Your task to perform on an android device: Add "razer nari" to the cart on walmart, then select checkout. Image 0: 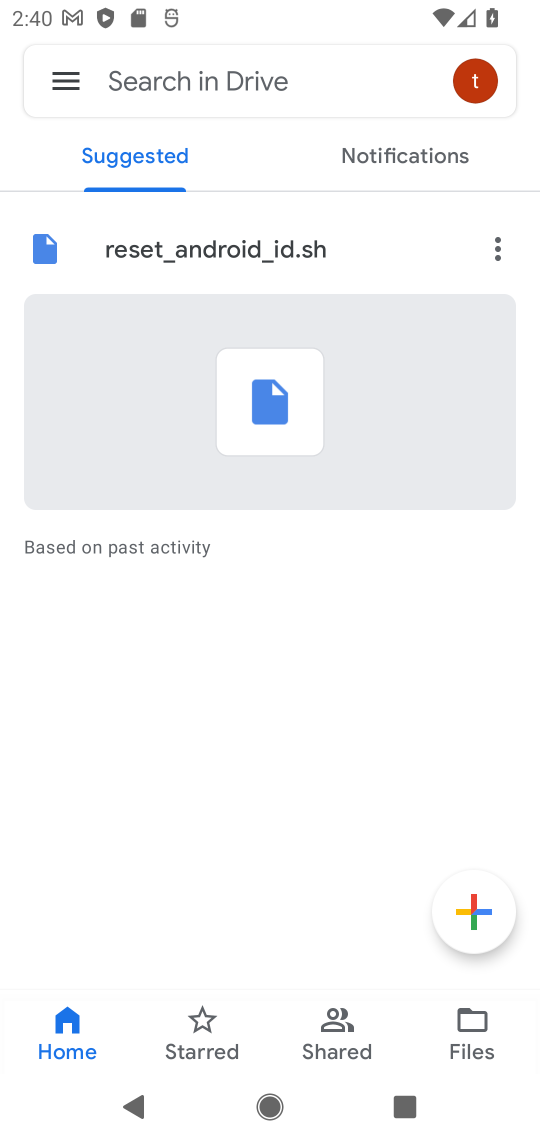
Step 0: press home button
Your task to perform on an android device: Add "razer nari" to the cart on walmart, then select checkout. Image 1: 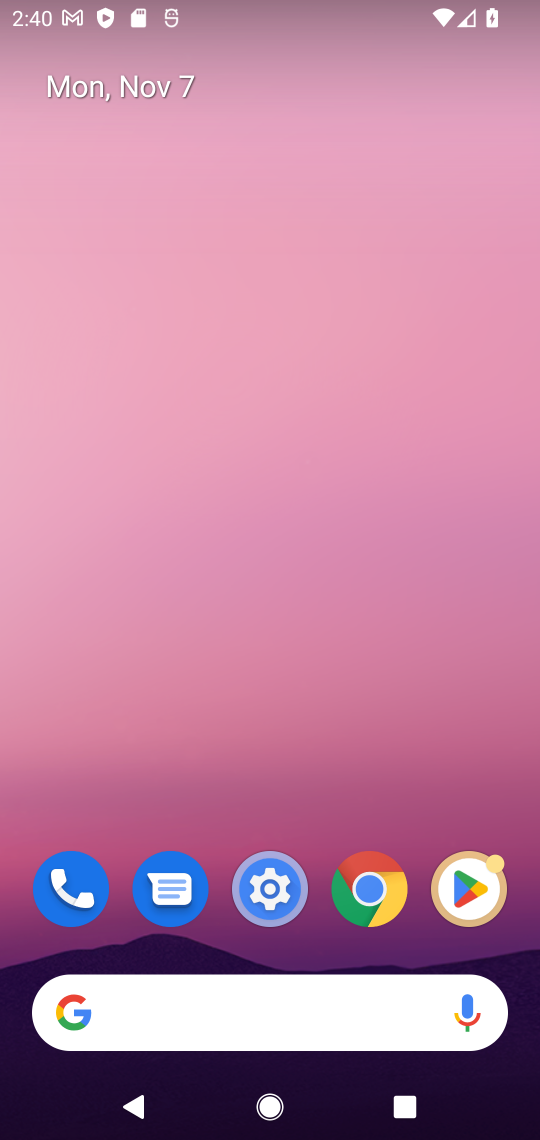
Step 1: click (362, 921)
Your task to perform on an android device: Add "razer nari" to the cart on walmart, then select checkout. Image 2: 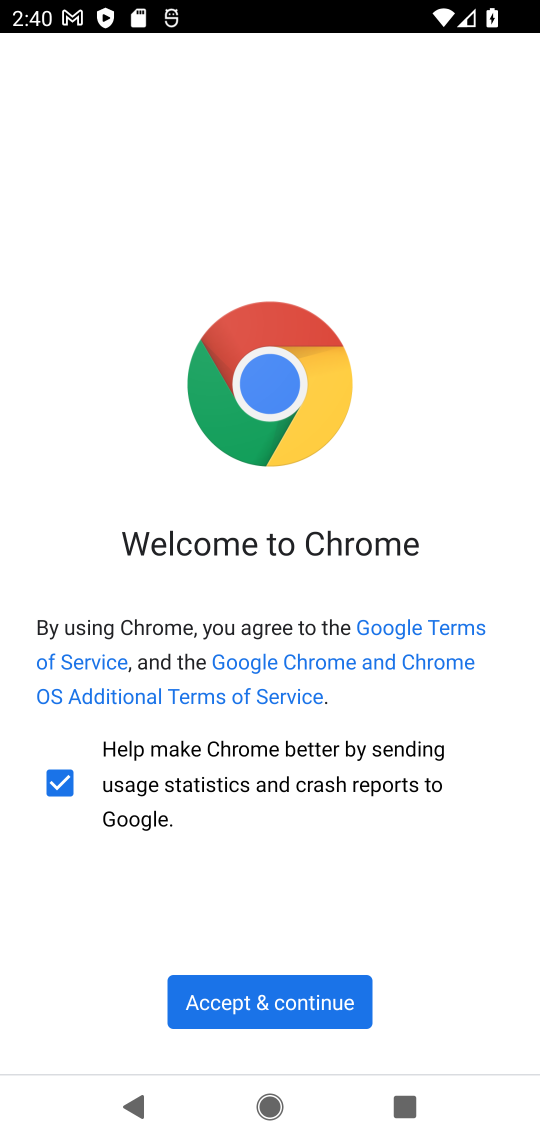
Step 2: click (310, 989)
Your task to perform on an android device: Add "razer nari" to the cart on walmart, then select checkout. Image 3: 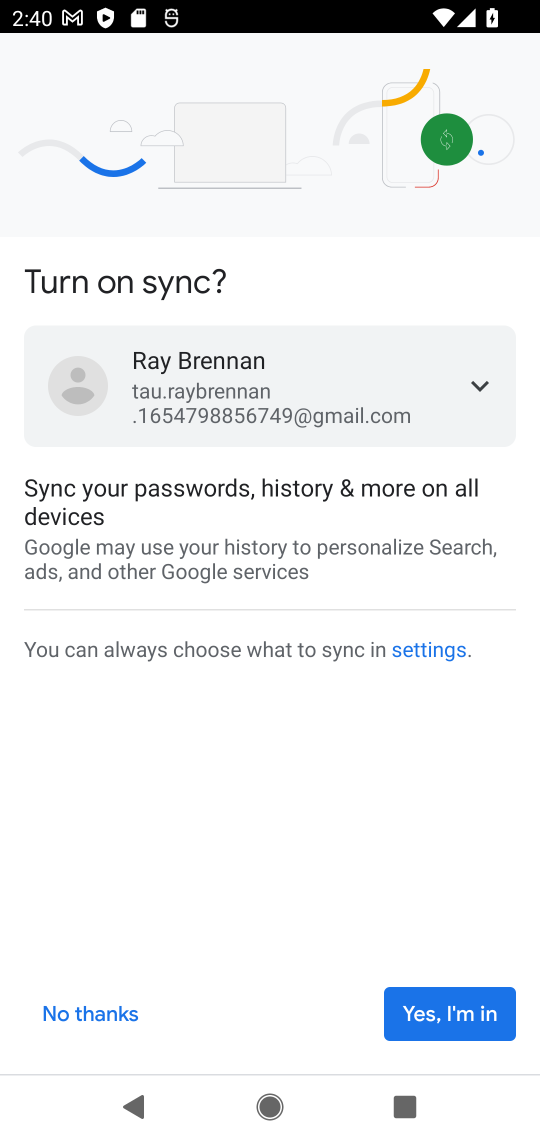
Step 3: click (474, 1009)
Your task to perform on an android device: Add "razer nari" to the cart on walmart, then select checkout. Image 4: 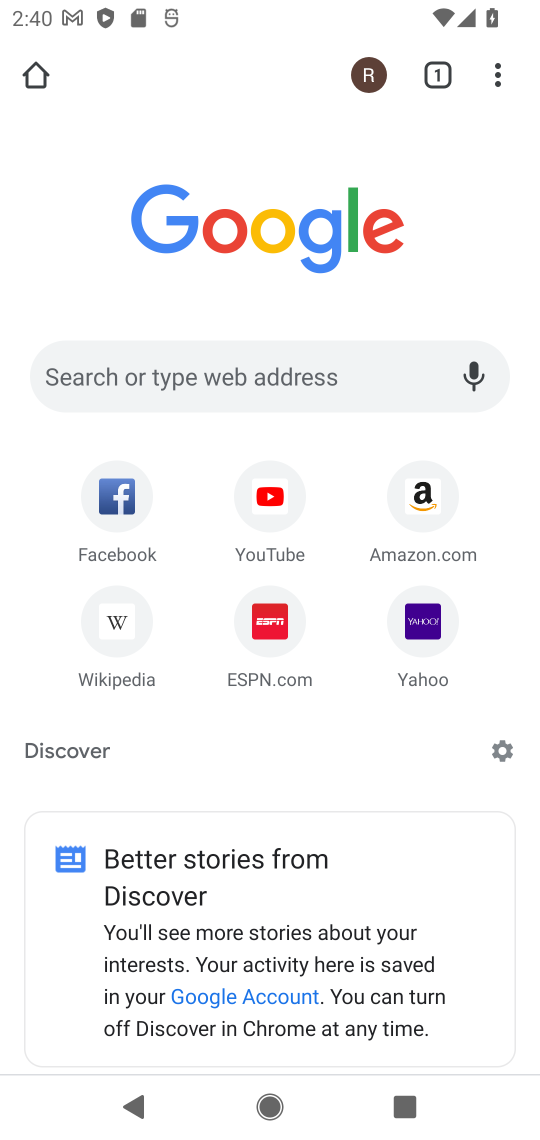
Step 4: click (218, 397)
Your task to perform on an android device: Add "razer nari" to the cart on walmart, then select checkout. Image 5: 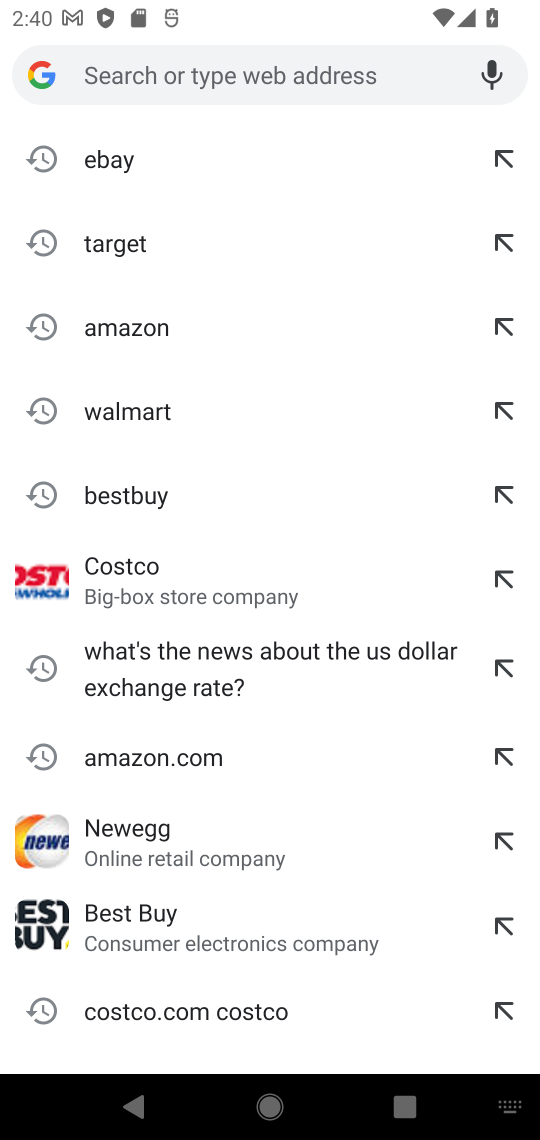
Step 5: type "walmart"
Your task to perform on an android device: Add "razer nari" to the cart on walmart, then select checkout. Image 6: 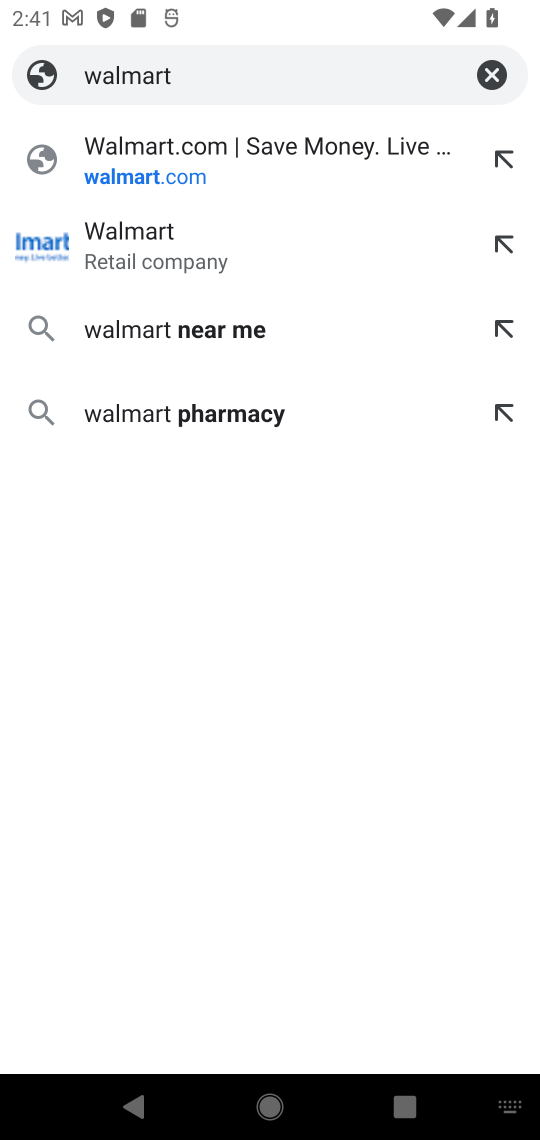
Step 6: click (220, 148)
Your task to perform on an android device: Add "razer nari" to the cart on walmart, then select checkout. Image 7: 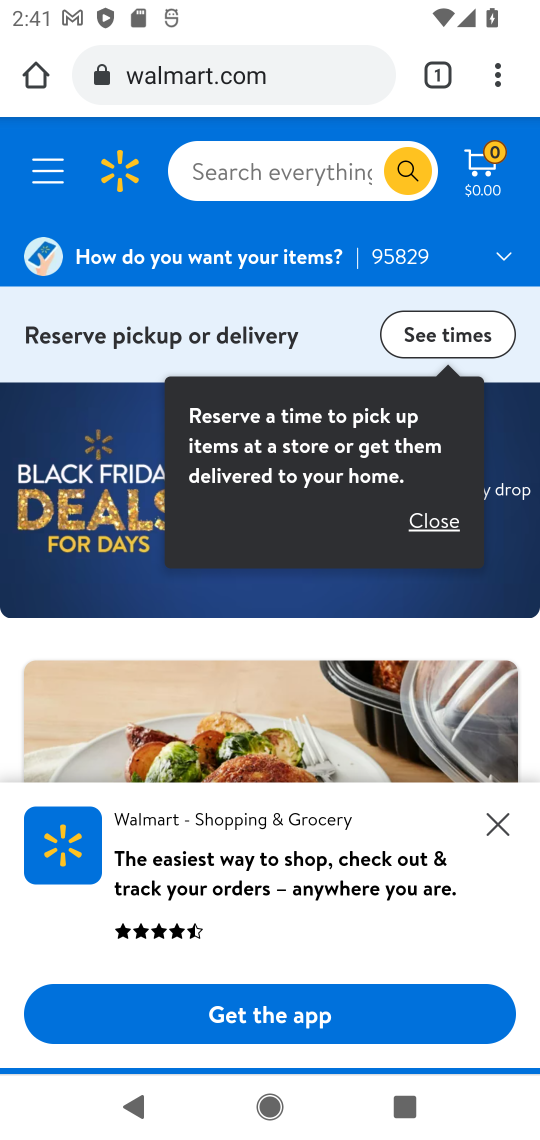
Step 7: click (262, 176)
Your task to perform on an android device: Add "razer nari" to the cart on walmart, then select checkout. Image 8: 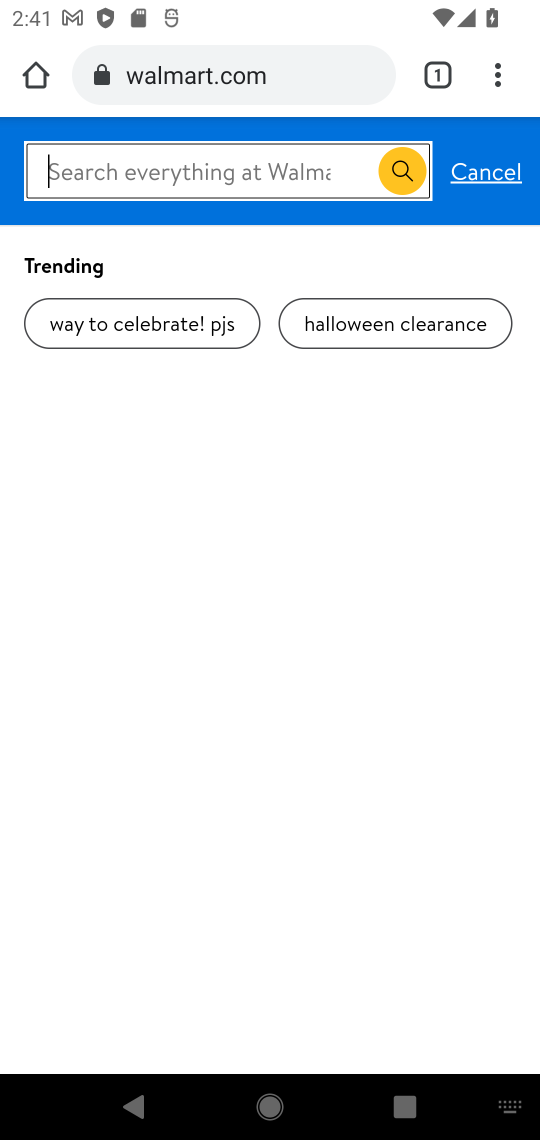
Step 8: type "razer nari"
Your task to perform on an android device: Add "razer nari" to the cart on walmart, then select checkout. Image 9: 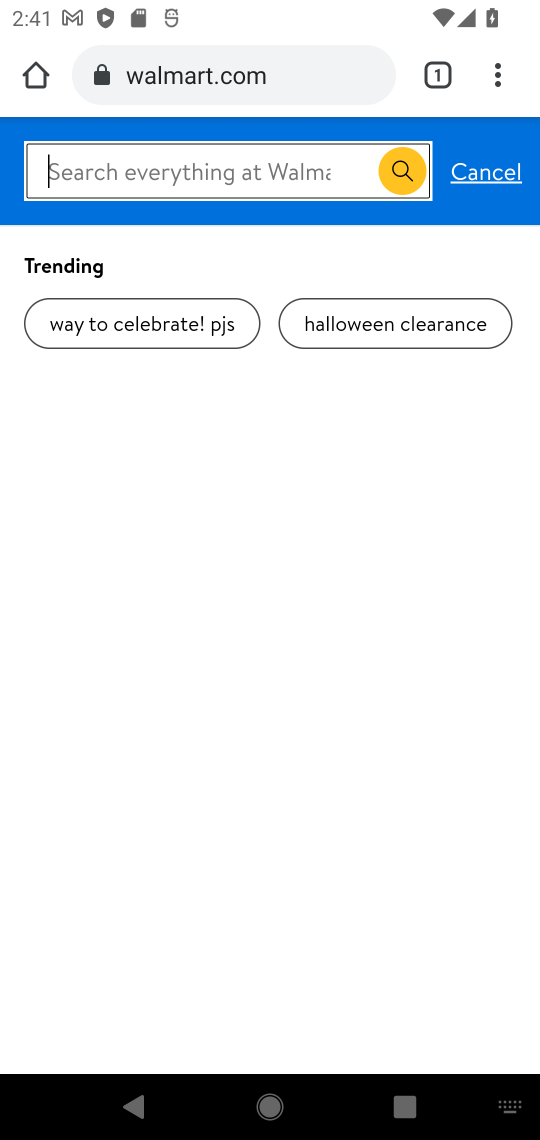
Step 9: press enter
Your task to perform on an android device: Add "razer nari" to the cart on walmart, then select checkout. Image 10: 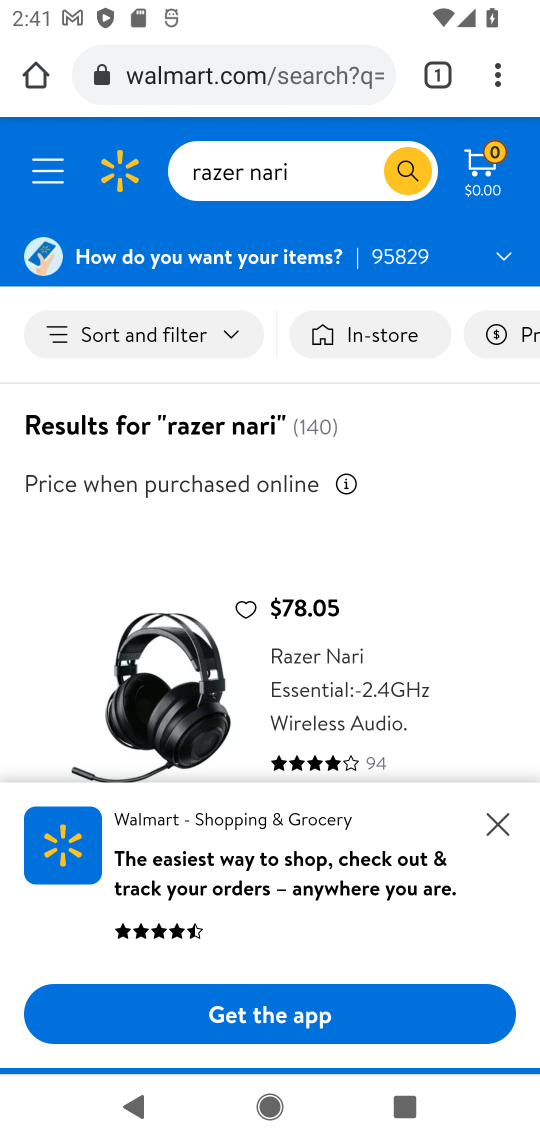
Step 10: click (220, 740)
Your task to perform on an android device: Add "razer nari" to the cart on walmart, then select checkout. Image 11: 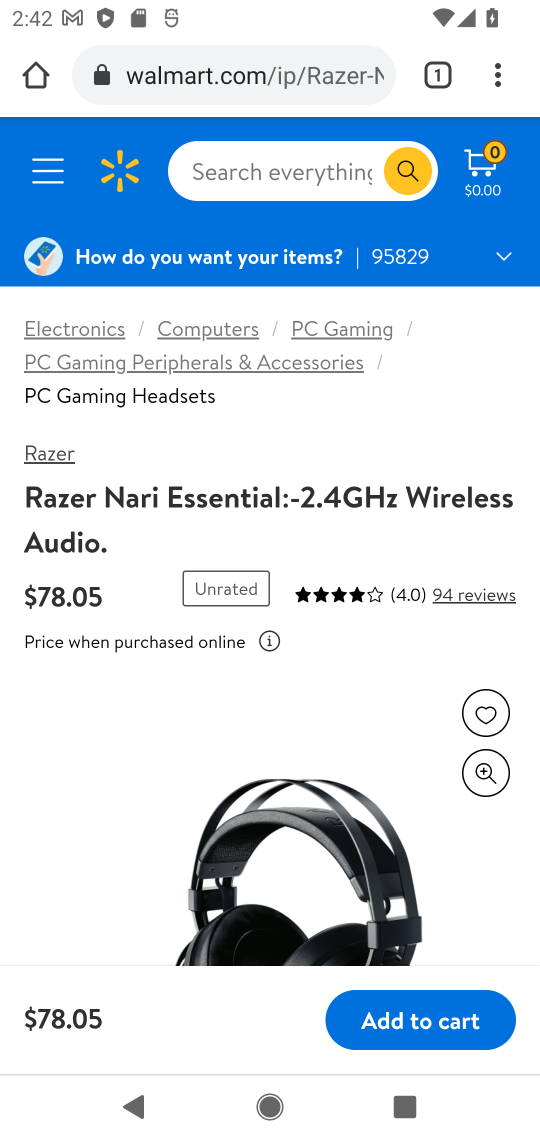
Step 11: click (471, 1020)
Your task to perform on an android device: Add "razer nari" to the cart on walmart, then select checkout. Image 12: 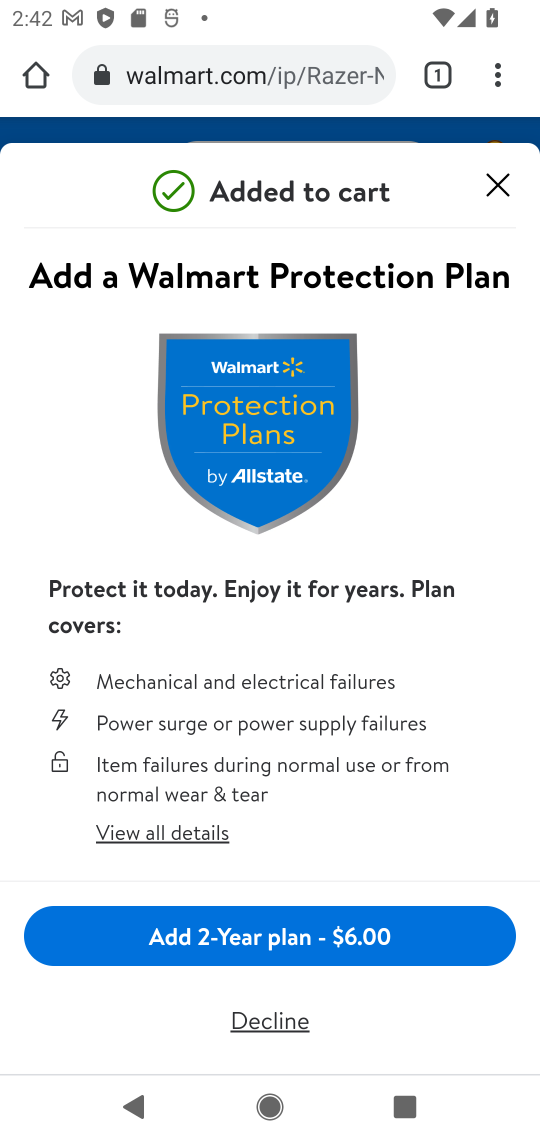
Step 12: click (511, 182)
Your task to perform on an android device: Add "razer nari" to the cart on walmart, then select checkout. Image 13: 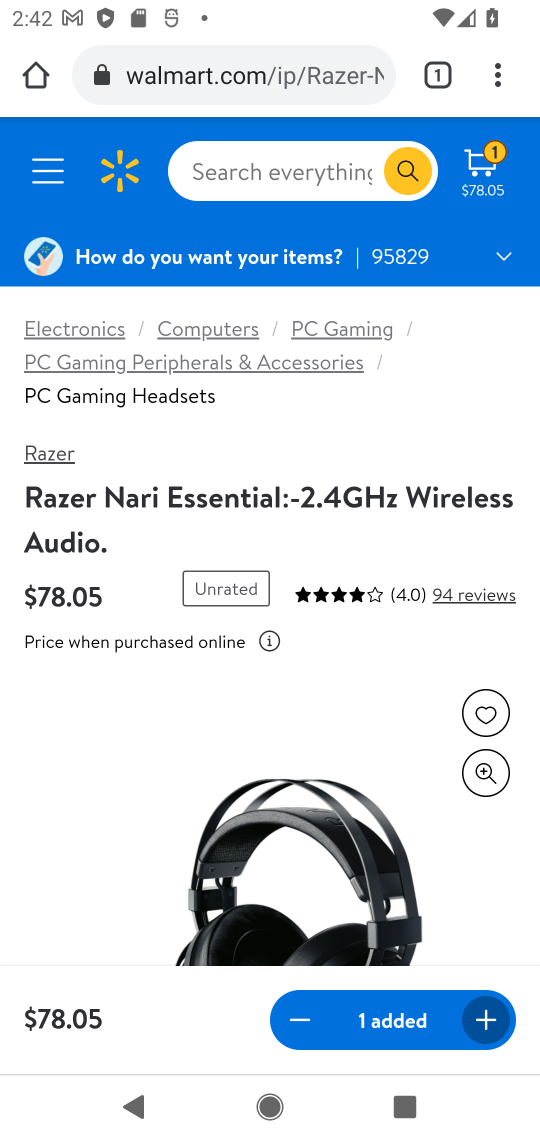
Step 13: click (477, 179)
Your task to perform on an android device: Add "razer nari" to the cart on walmart, then select checkout. Image 14: 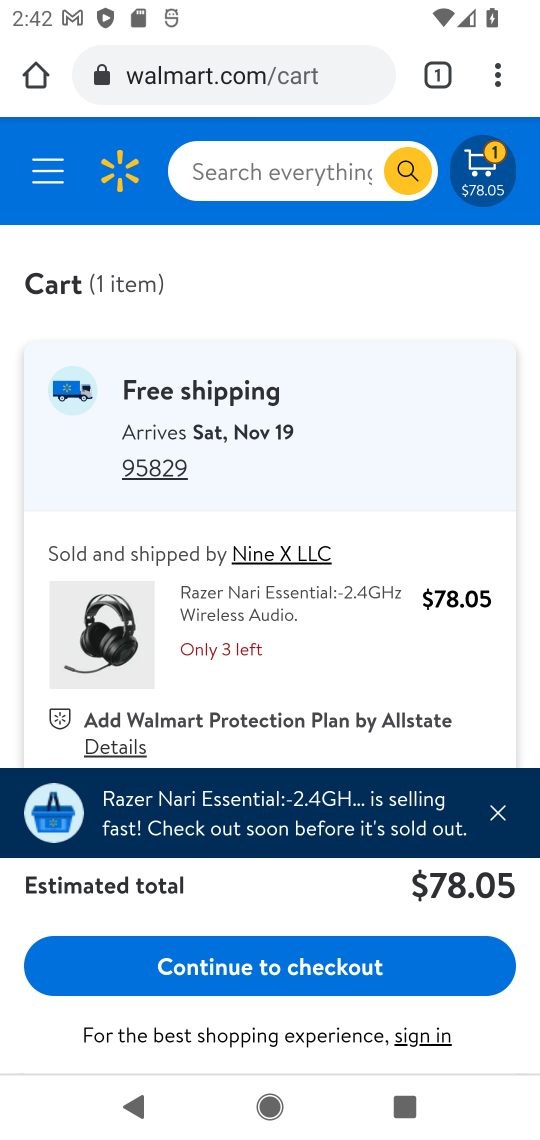
Step 14: click (292, 983)
Your task to perform on an android device: Add "razer nari" to the cart on walmart, then select checkout. Image 15: 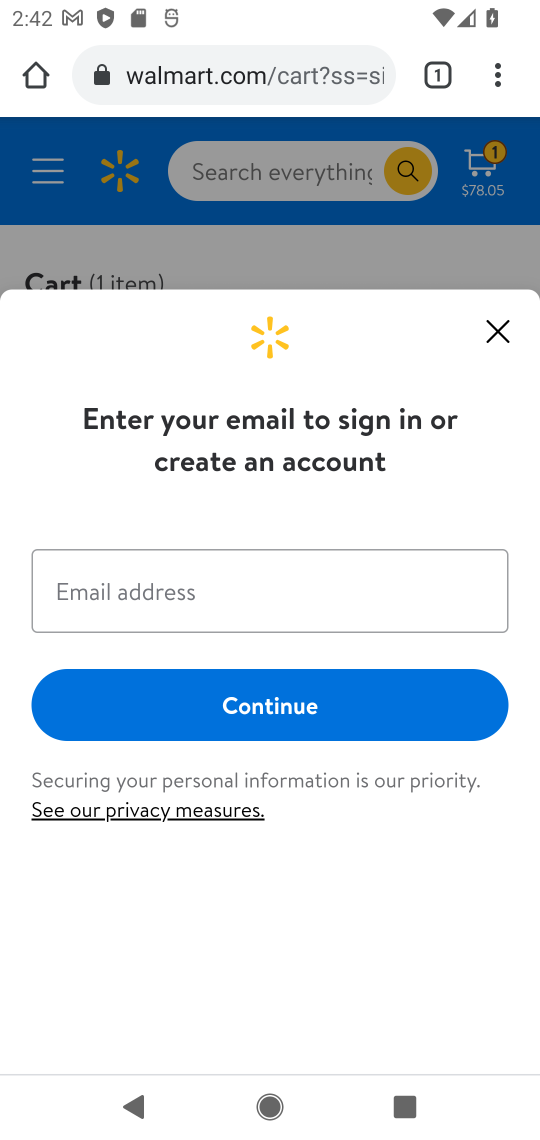
Step 15: task complete